Your task to perform on an android device: What's the weather going to be tomorrow? Image 0: 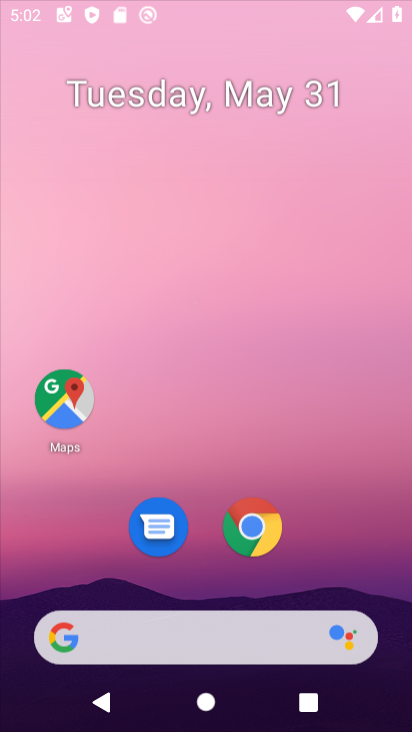
Step 0: press home button
Your task to perform on an android device: What's the weather going to be tomorrow? Image 1: 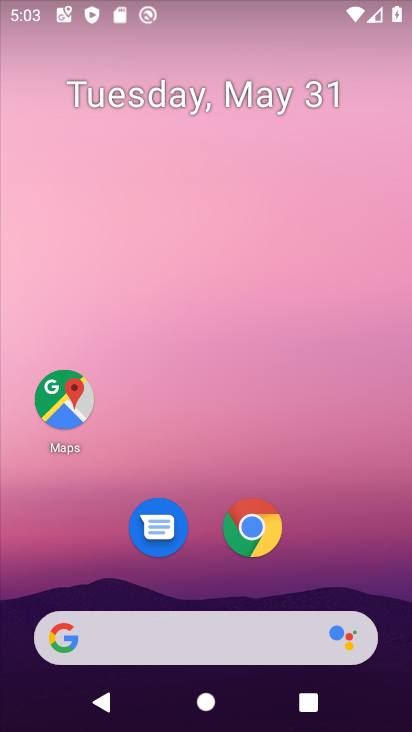
Step 1: drag from (307, 562) to (361, 105)
Your task to perform on an android device: What's the weather going to be tomorrow? Image 2: 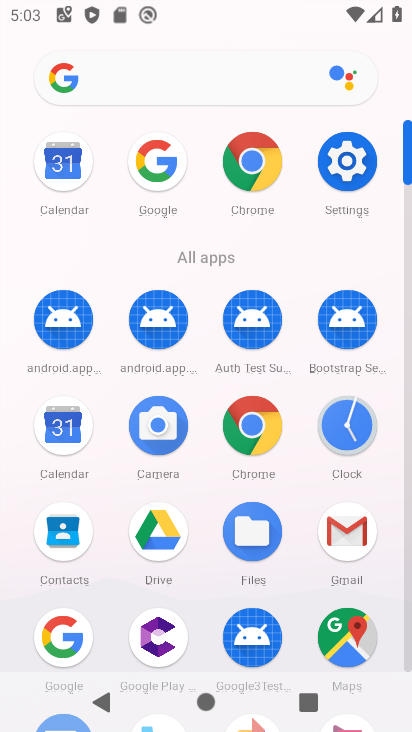
Step 2: click (253, 429)
Your task to perform on an android device: What's the weather going to be tomorrow? Image 3: 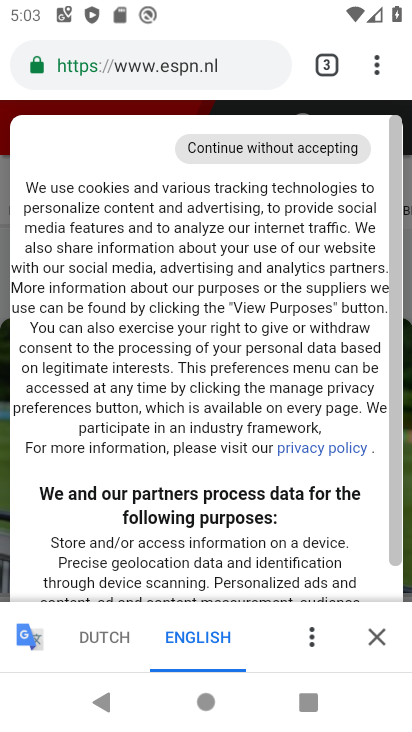
Step 3: click (246, 62)
Your task to perform on an android device: What's the weather going to be tomorrow? Image 4: 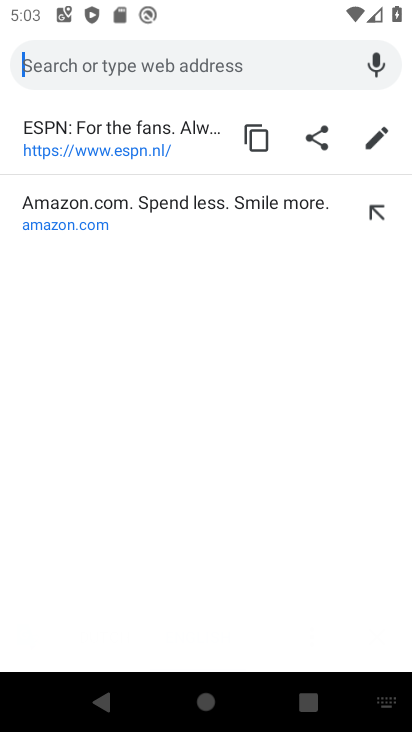
Step 4: type "What's the weather going to be tomorrow?"
Your task to perform on an android device: What's the weather going to be tomorrow? Image 5: 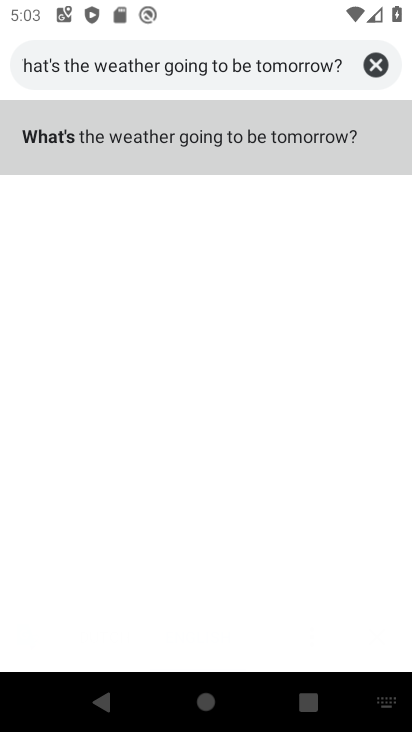
Step 5: click (230, 140)
Your task to perform on an android device: What's the weather going to be tomorrow? Image 6: 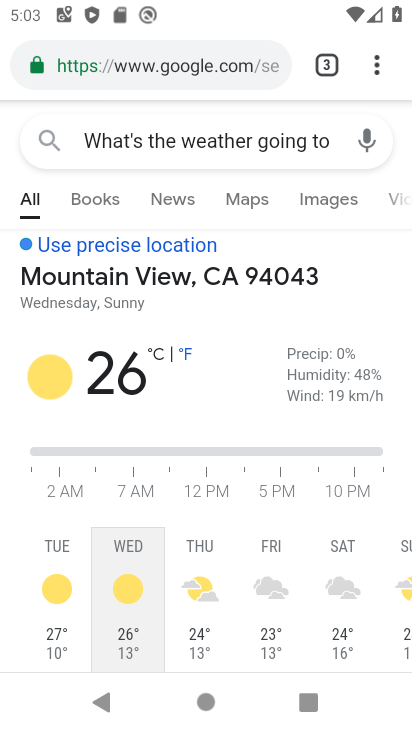
Step 6: task complete